Your task to perform on an android device: move a message to another label in the gmail app Image 0: 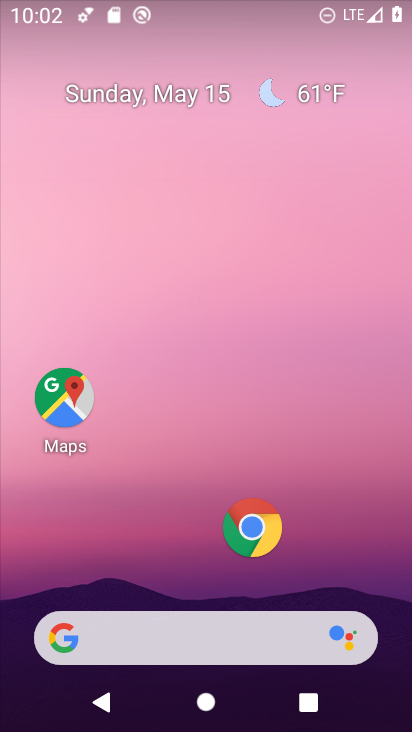
Step 0: press home button
Your task to perform on an android device: move a message to another label in the gmail app Image 1: 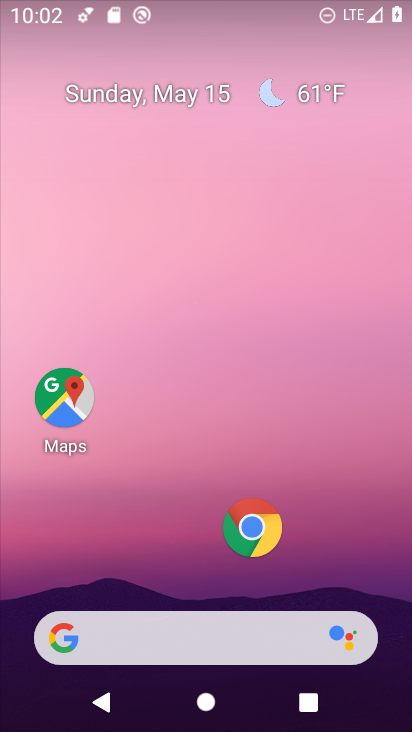
Step 1: drag from (200, 537) to (227, 97)
Your task to perform on an android device: move a message to another label in the gmail app Image 2: 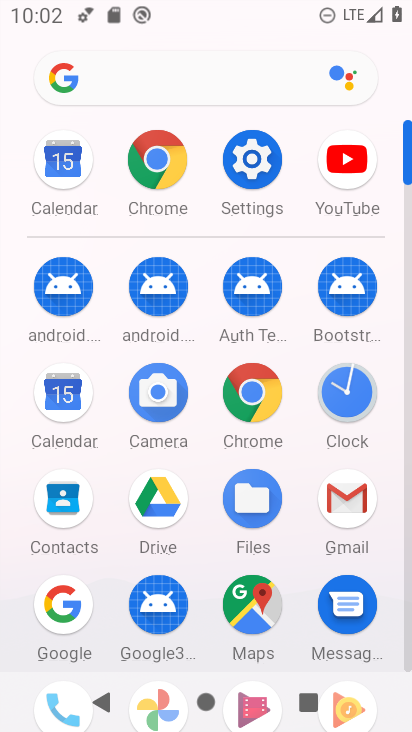
Step 2: click (343, 493)
Your task to perform on an android device: move a message to another label in the gmail app Image 3: 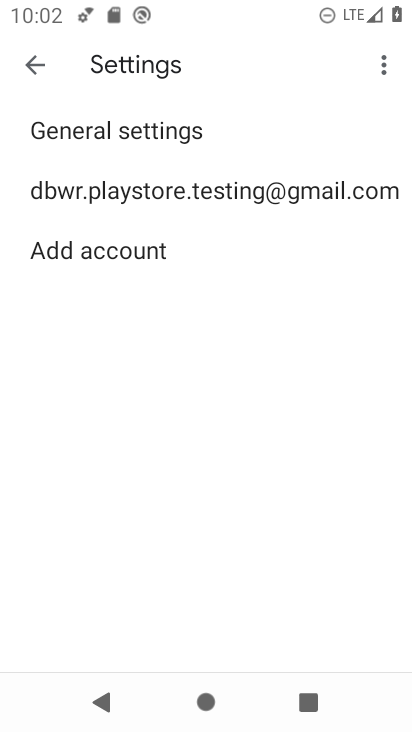
Step 3: click (35, 67)
Your task to perform on an android device: move a message to another label in the gmail app Image 4: 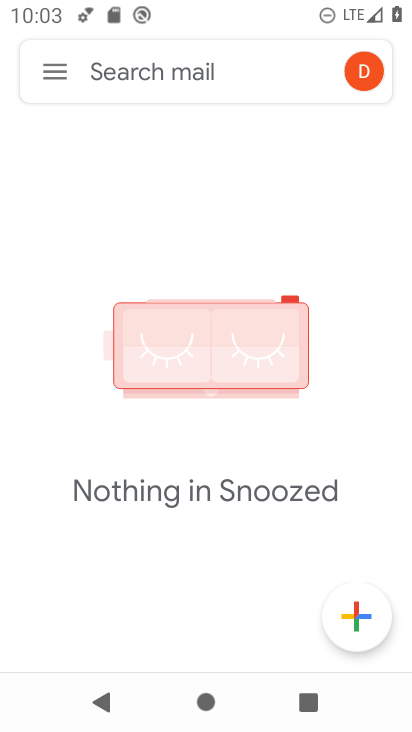
Step 4: task complete